Your task to perform on an android device: find photos in the google photos app Image 0: 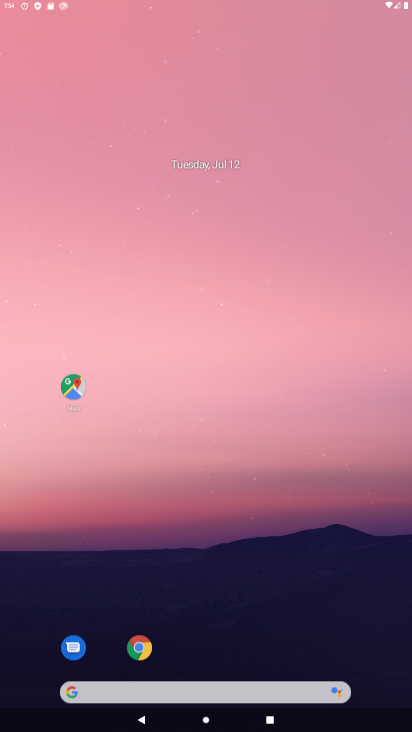
Step 0: drag from (376, 616) to (319, 194)
Your task to perform on an android device: find photos in the google photos app Image 1: 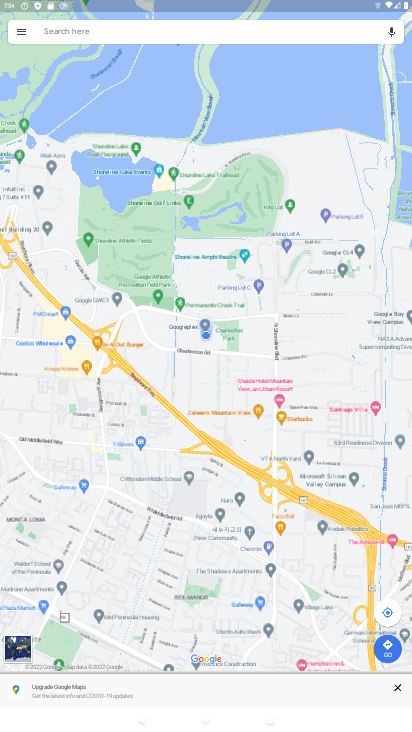
Step 1: press home button
Your task to perform on an android device: find photos in the google photos app Image 2: 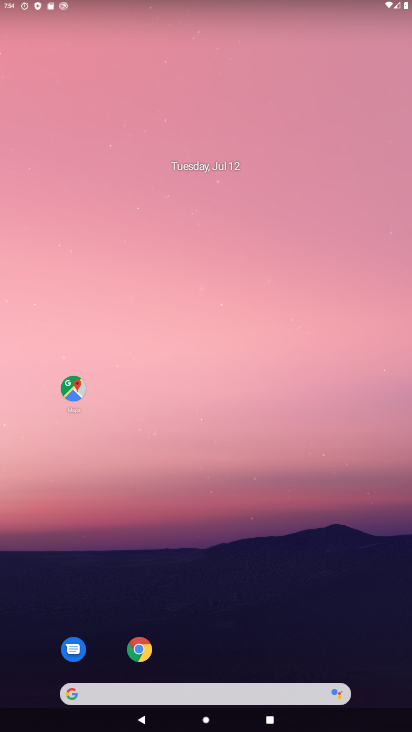
Step 2: drag from (285, 608) to (200, 179)
Your task to perform on an android device: find photos in the google photos app Image 3: 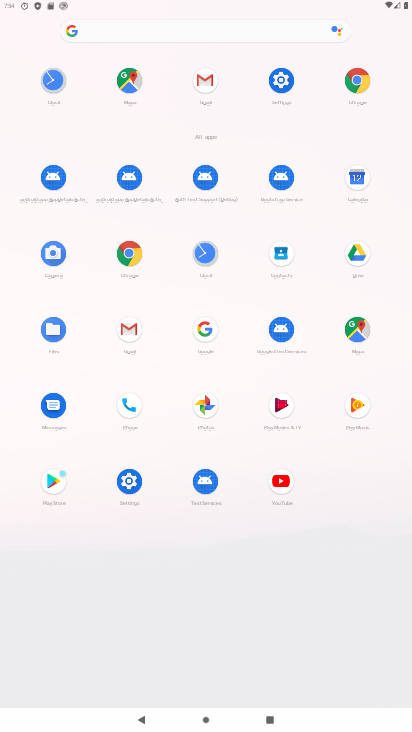
Step 3: click (202, 410)
Your task to perform on an android device: find photos in the google photos app Image 4: 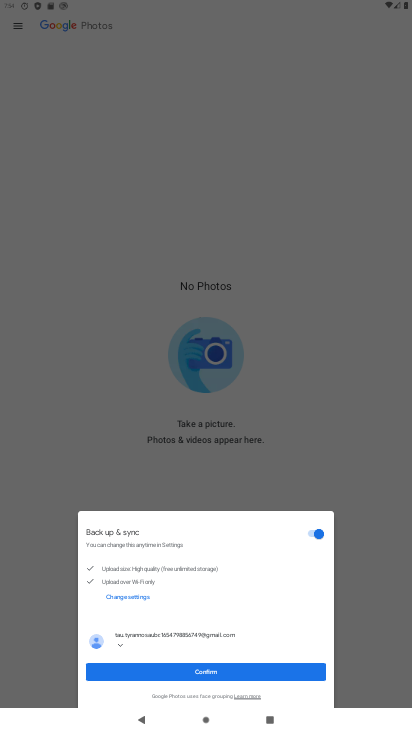
Step 4: click (210, 679)
Your task to perform on an android device: find photos in the google photos app Image 5: 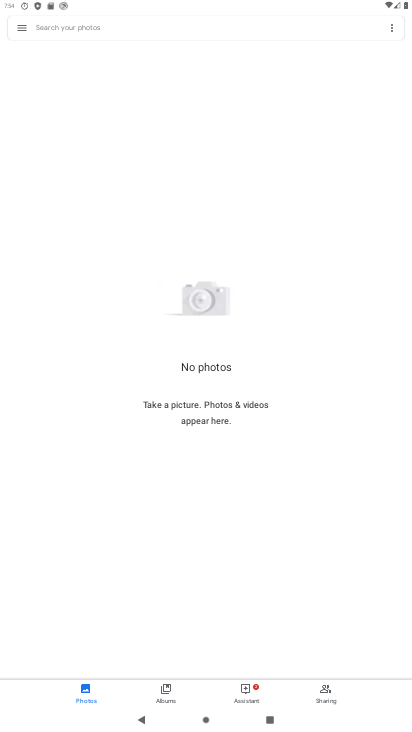
Step 5: task complete